Your task to perform on an android device: Go to location settings Image 0: 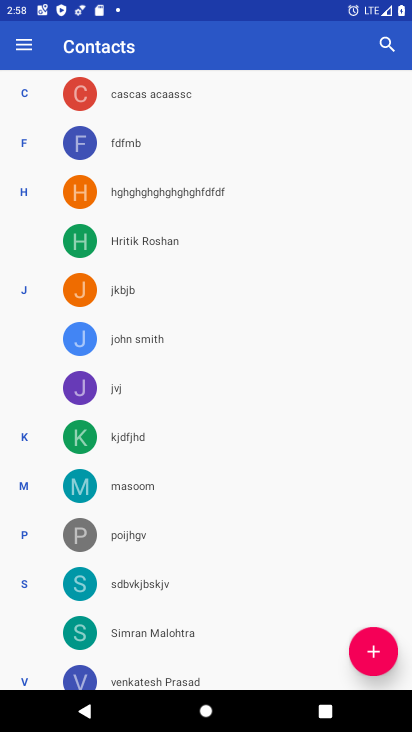
Step 0: press home button
Your task to perform on an android device: Go to location settings Image 1: 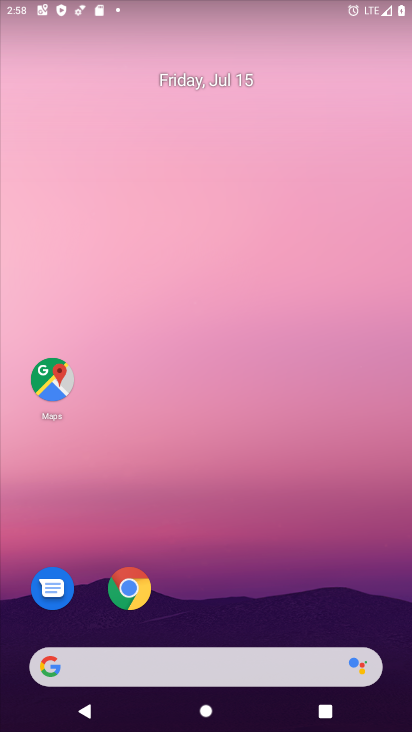
Step 1: drag from (182, 671) to (169, 237)
Your task to perform on an android device: Go to location settings Image 2: 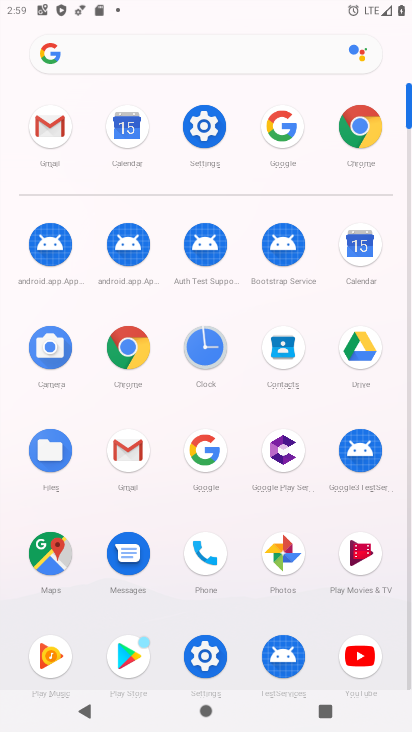
Step 2: click (205, 126)
Your task to perform on an android device: Go to location settings Image 3: 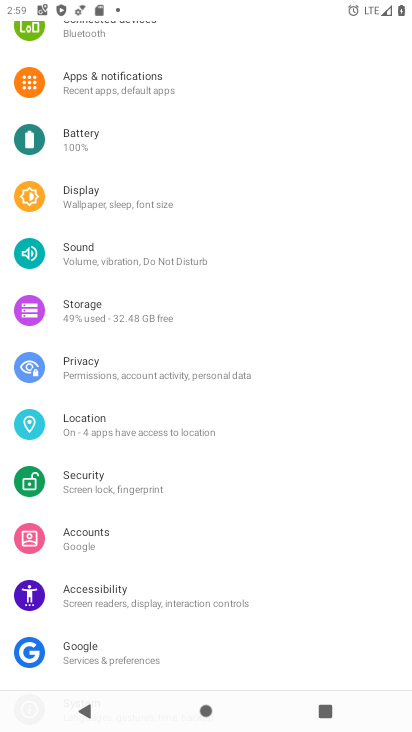
Step 3: click (120, 433)
Your task to perform on an android device: Go to location settings Image 4: 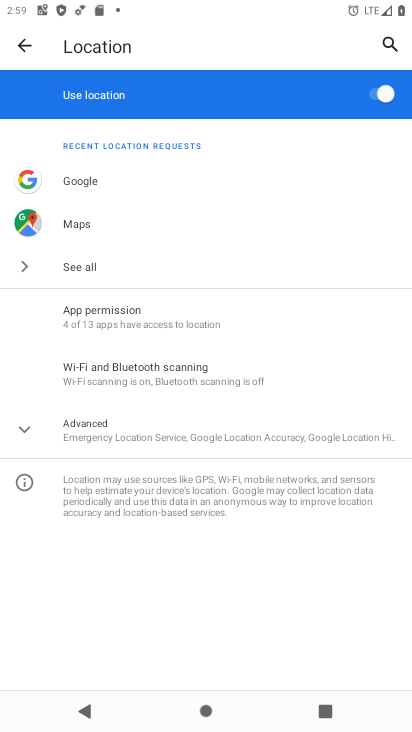
Step 4: task complete